Your task to perform on an android device: Go to sound settings Image 0: 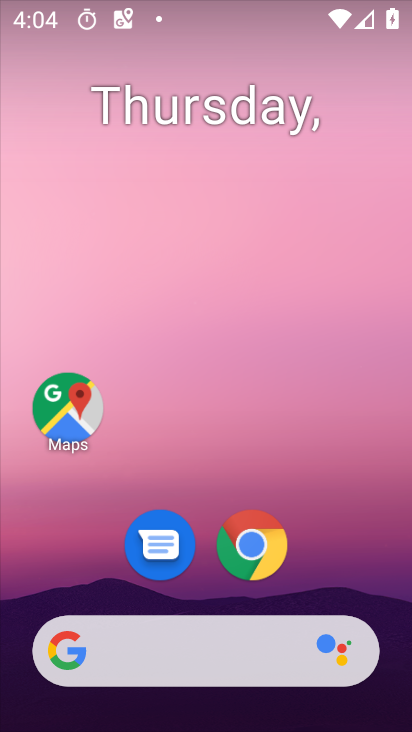
Step 0: drag from (207, 631) to (166, 153)
Your task to perform on an android device: Go to sound settings Image 1: 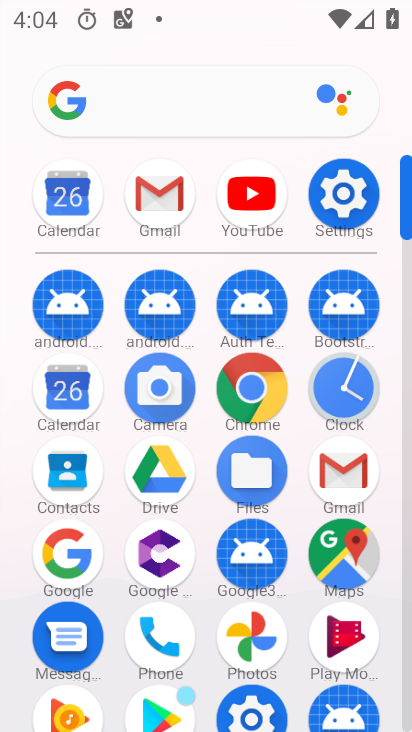
Step 1: click (345, 190)
Your task to perform on an android device: Go to sound settings Image 2: 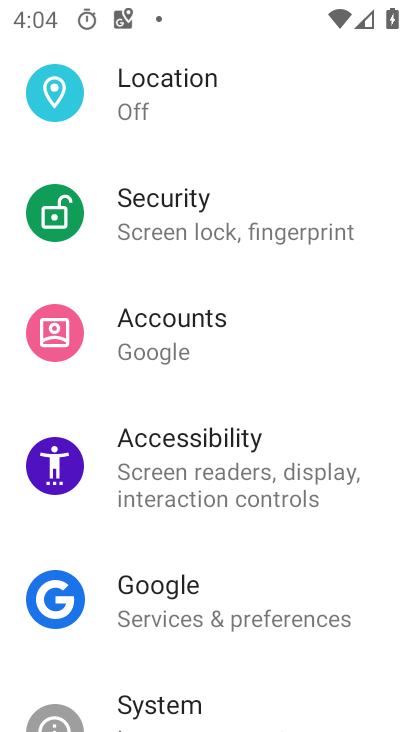
Step 2: drag from (180, 180) to (140, 579)
Your task to perform on an android device: Go to sound settings Image 3: 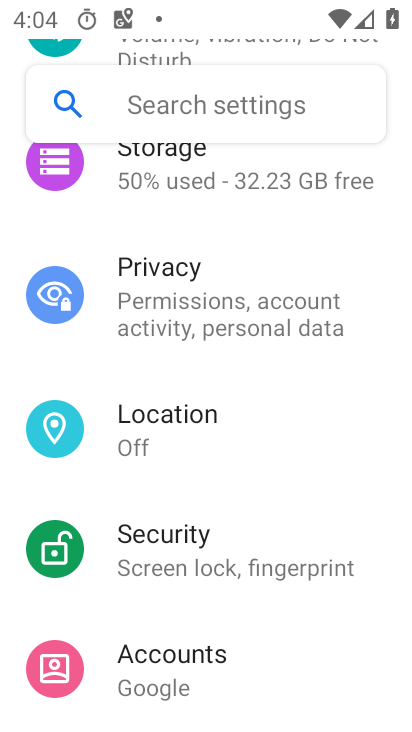
Step 3: drag from (204, 185) to (191, 647)
Your task to perform on an android device: Go to sound settings Image 4: 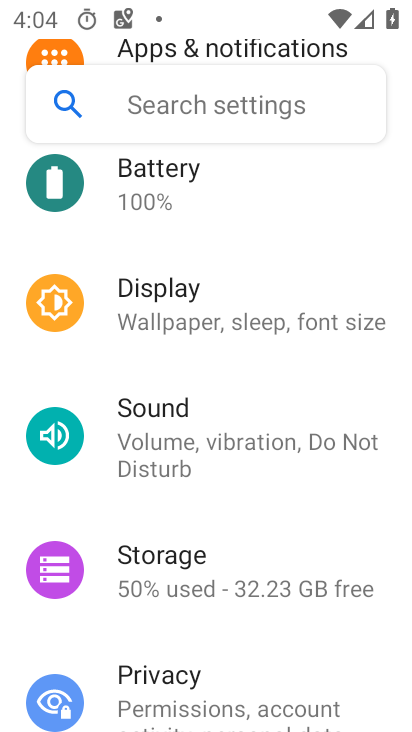
Step 4: click (161, 423)
Your task to perform on an android device: Go to sound settings Image 5: 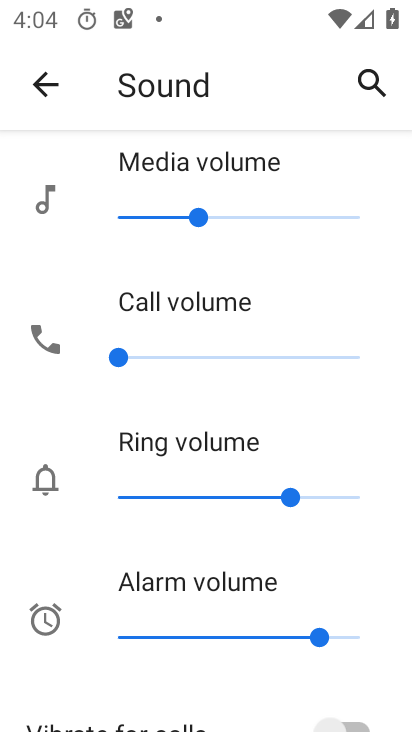
Step 5: task complete